Your task to perform on an android device: uninstall "Indeed Job Search" Image 0: 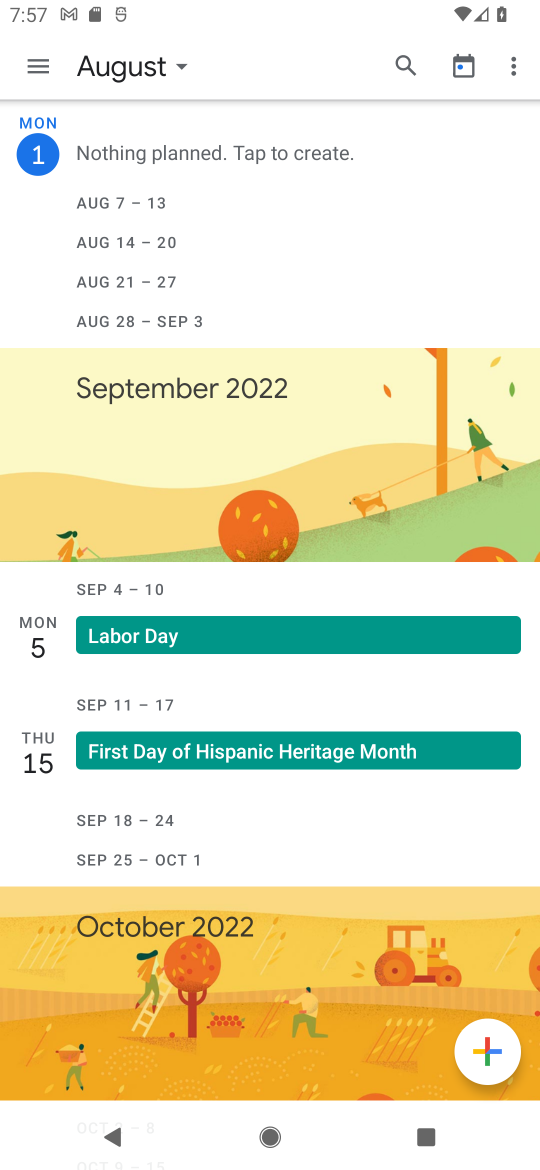
Step 0: press home button
Your task to perform on an android device: uninstall "Indeed Job Search" Image 1: 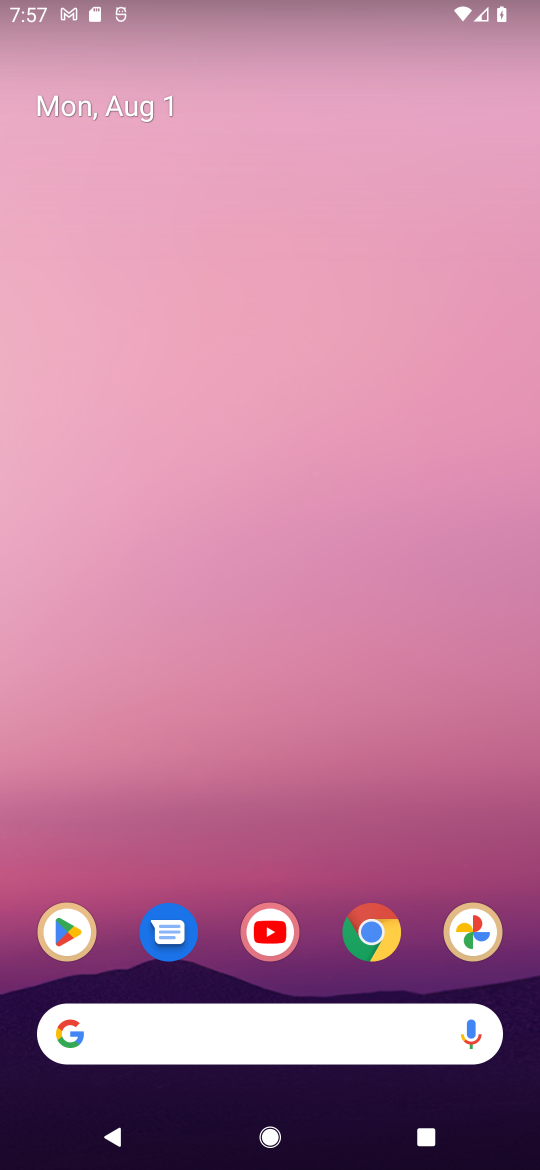
Step 1: click (102, 949)
Your task to perform on an android device: uninstall "Indeed Job Search" Image 2: 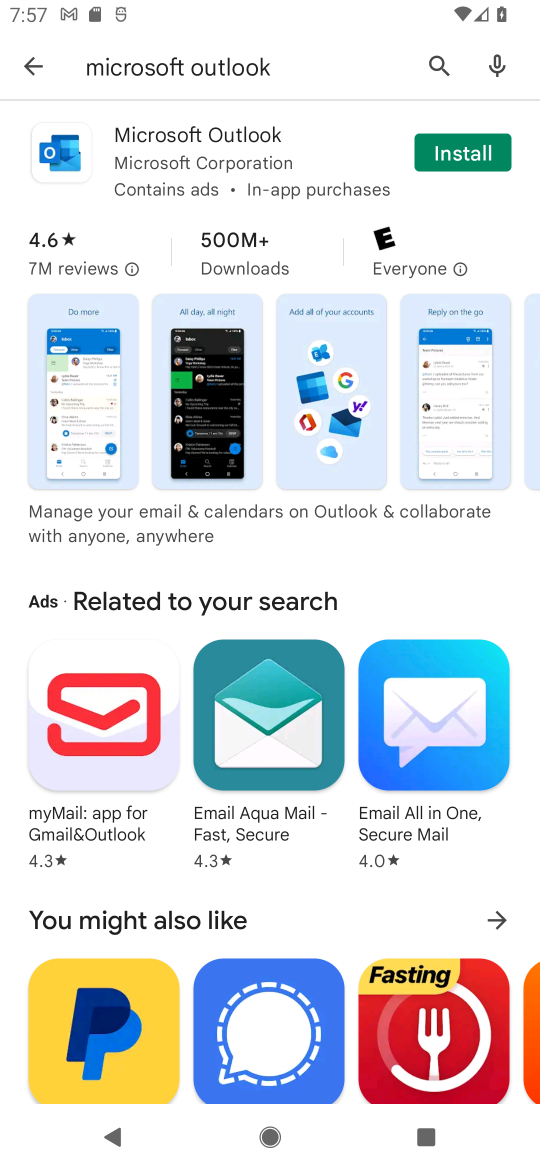
Step 2: click (202, 61)
Your task to perform on an android device: uninstall "Indeed Job Search" Image 3: 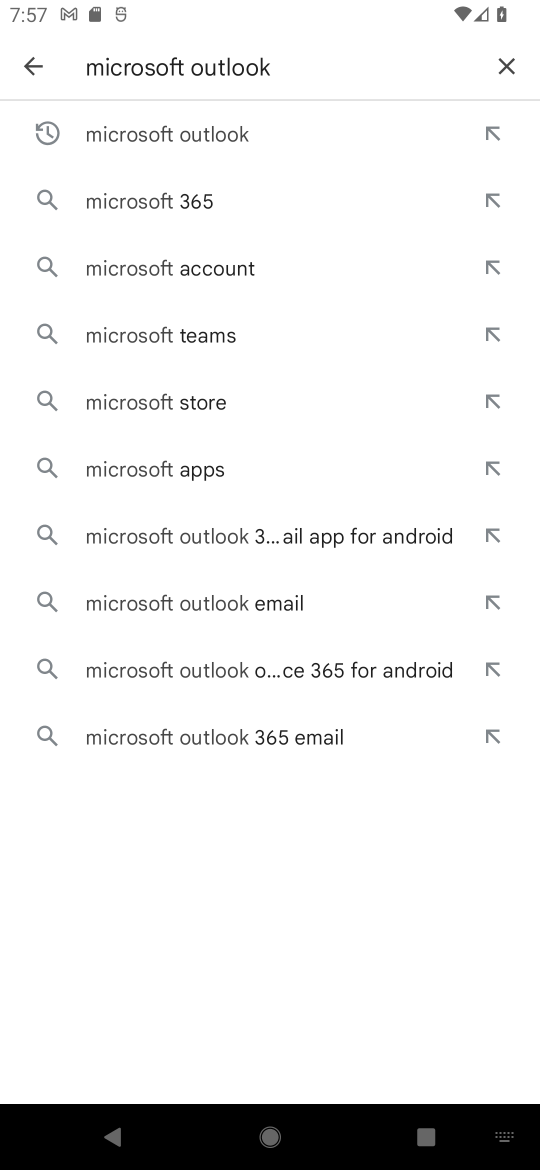
Step 3: click (491, 73)
Your task to perform on an android device: uninstall "Indeed Job Search" Image 4: 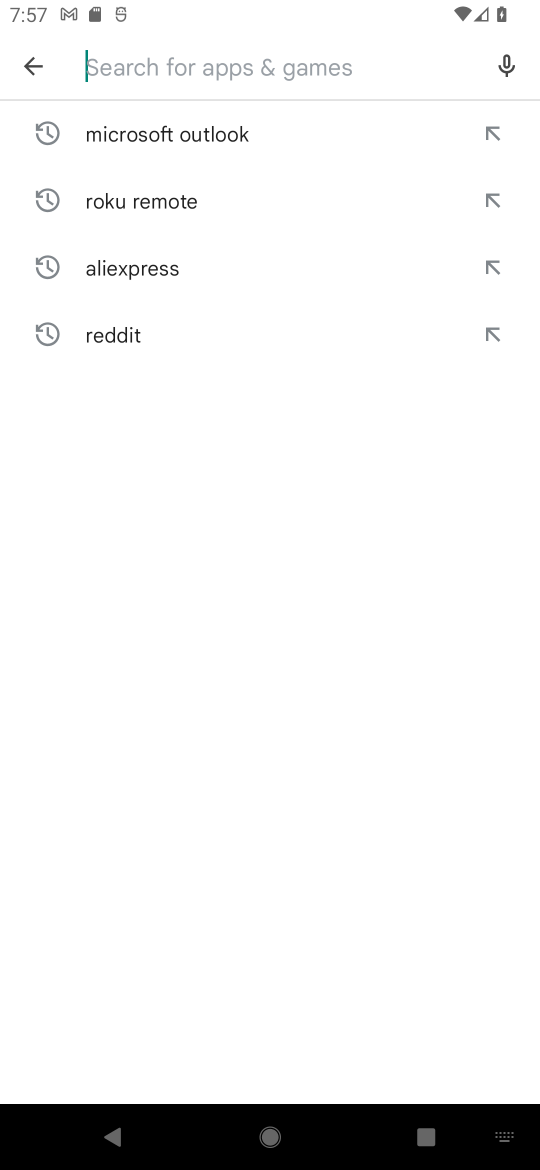
Step 4: type "indeed"
Your task to perform on an android device: uninstall "Indeed Job Search" Image 5: 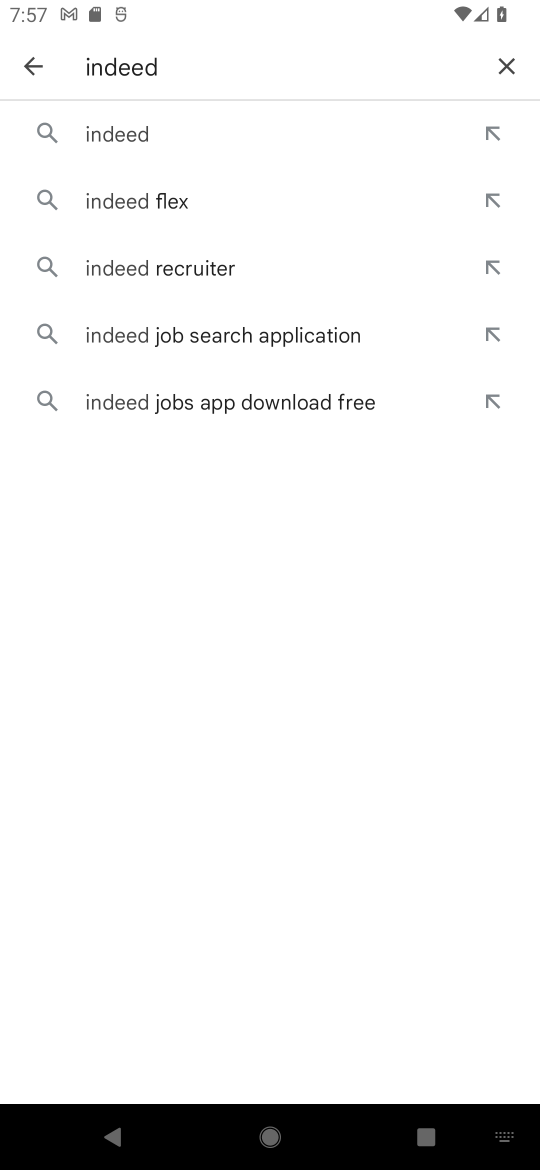
Step 5: click (115, 130)
Your task to perform on an android device: uninstall "Indeed Job Search" Image 6: 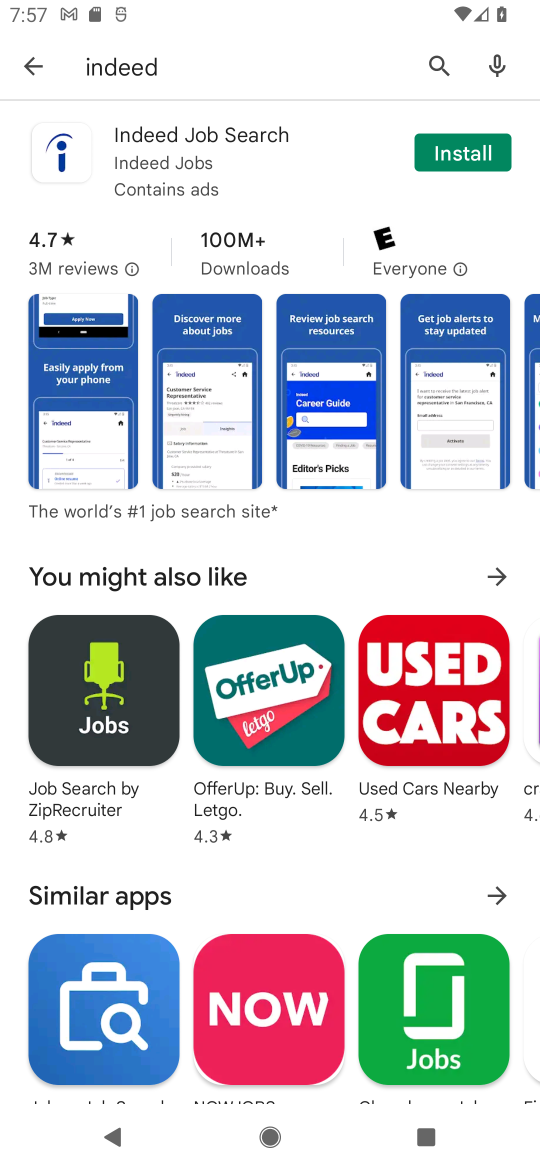
Step 6: click (31, 150)
Your task to perform on an android device: uninstall "Indeed Job Search" Image 7: 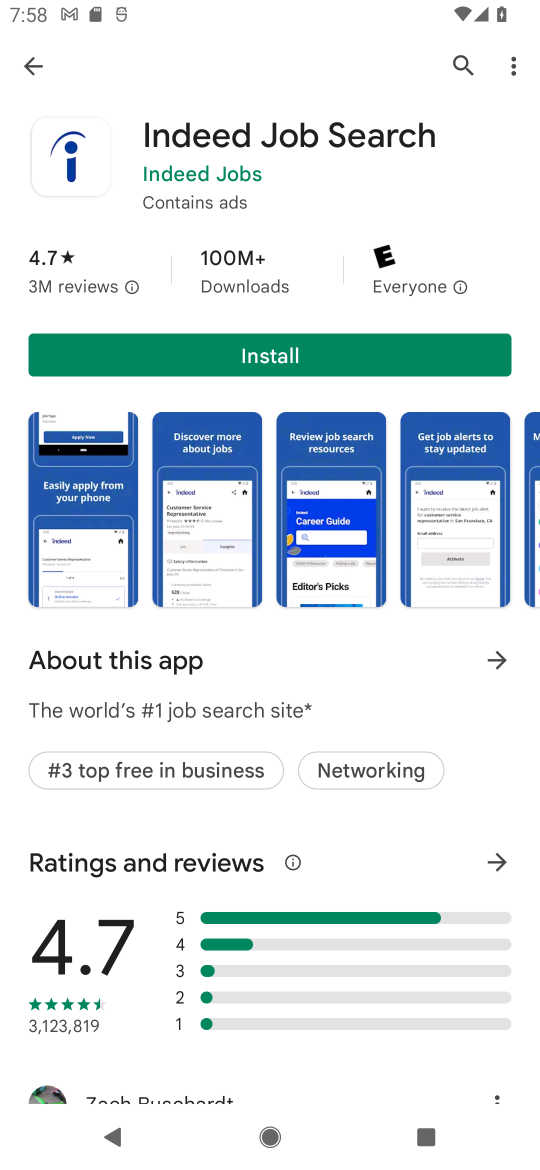
Step 7: task complete